Your task to perform on an android device: toggle pop-ups in chrome Image 0: 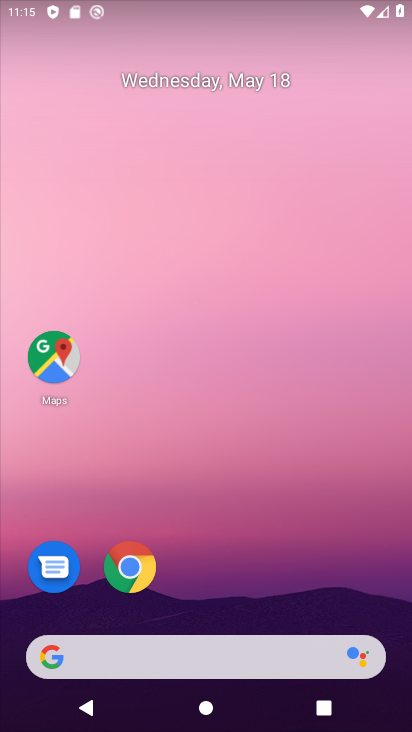
Step 0: drag from (207, 584) to (205, 151)
Your task to perform on an android device: toggle pop-ups in chrome Image 1: 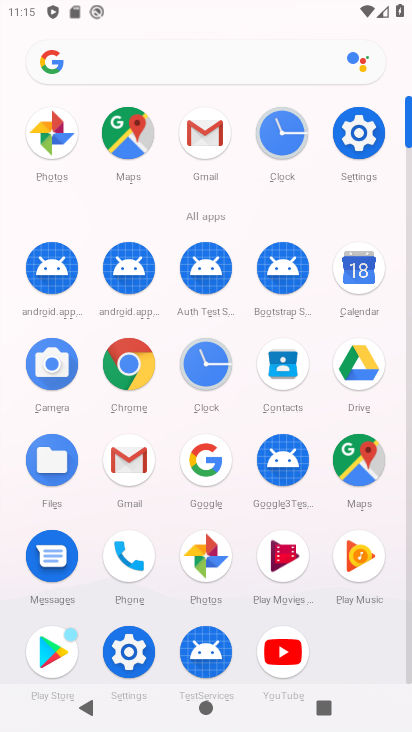
Step 1: click (130, 373)
Your task to perform on an android device: toggle pop-ups in chrome Image 2: 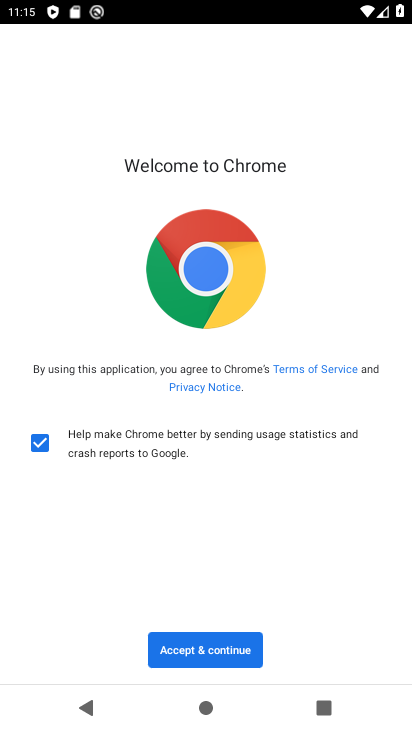
Step 2: click (195, 642)
Your task to perform on an android device: toggle pop-ups in chrome Image 3: 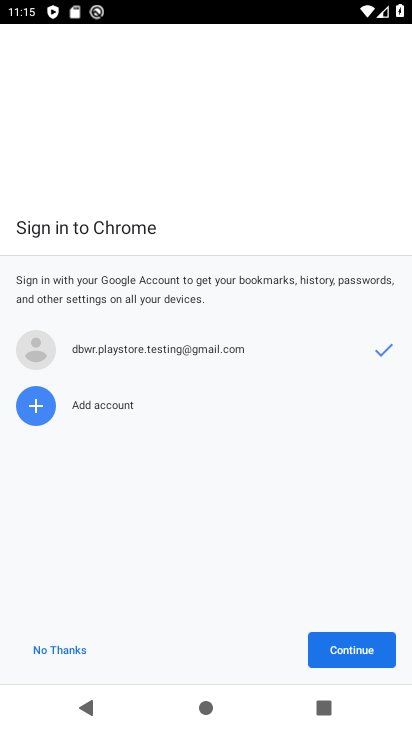
Step 3: click (350, 655)
Your task to perform on an android device: toggle pop-ups in chrome Image 4: 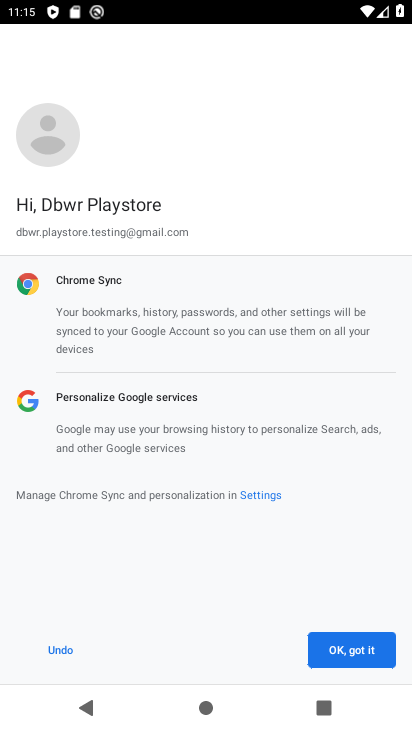
Step 4: click (350, 654)
Your task to perform on an android device: toggle pop-ups in chrome Image 5: 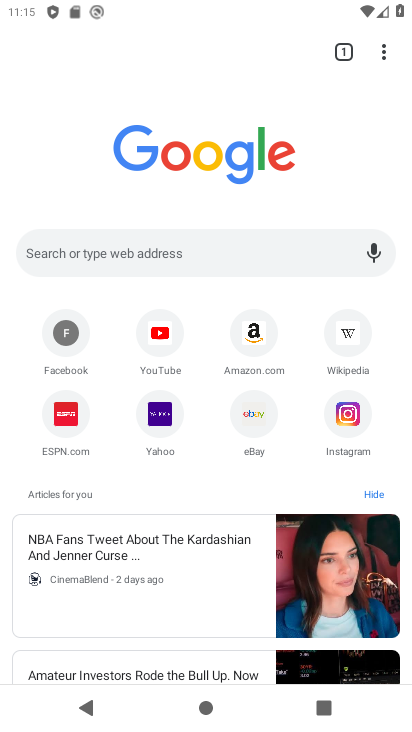
Step 5: click (390, 57)
Your task to perform on an android device: toggle pop-ups in chrome Image 6: 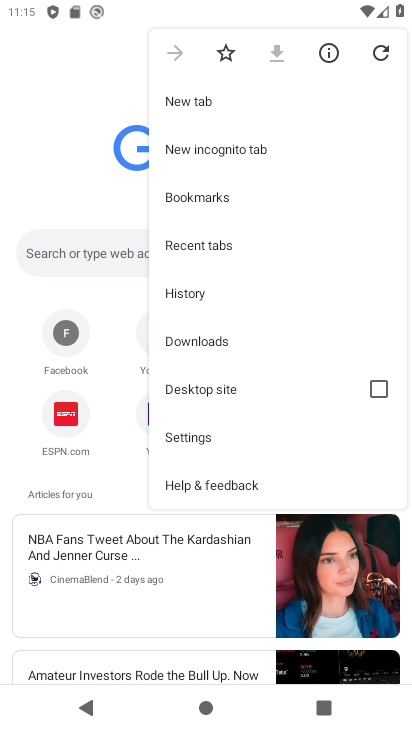
Step 6: click (193, 434)
Your task to perform on an android device: toggle pop-ups in chrome Image 7: 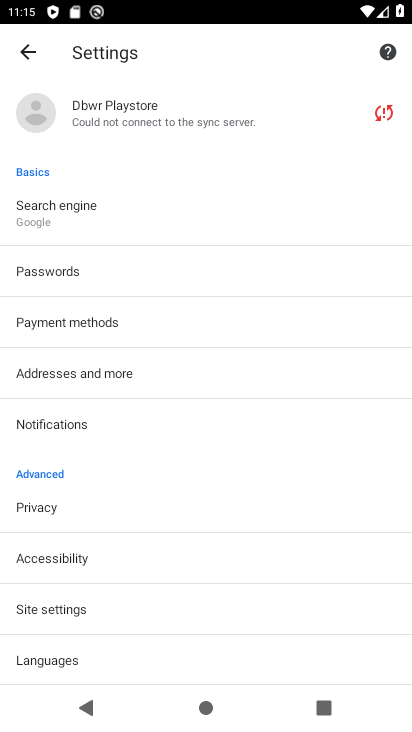
Step 7: click (74, 610)
Your task to perform on an android device: toggle pop-ups in chrome Image 8: 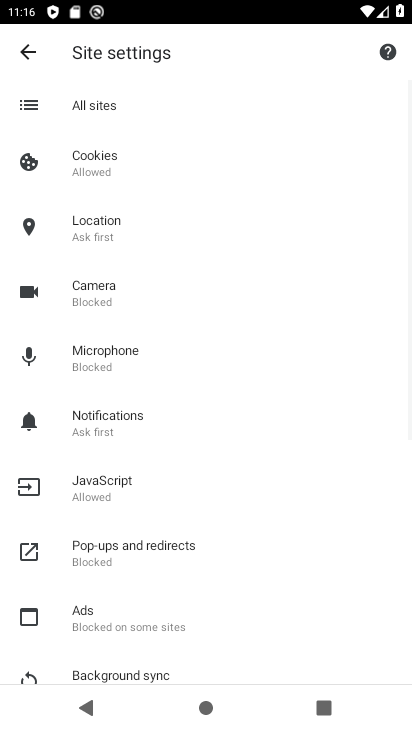
Step 8: click (132, 546)
Your task to perform on an android device: toggle pop-ups in chrome Image 9: 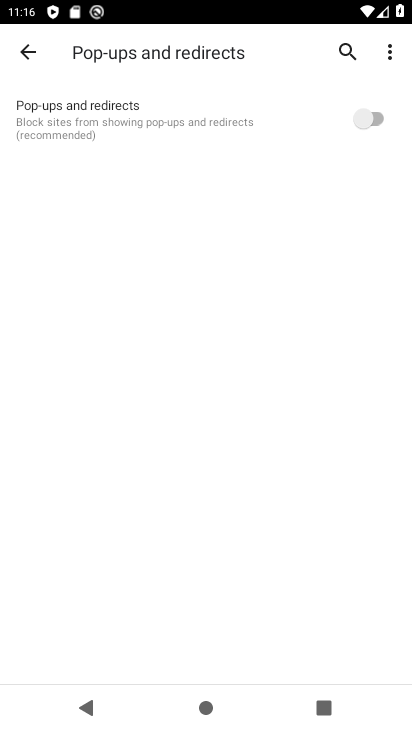
Step 9: click (379, 120)
Your task to perform on an android device: toggle pop-ups in chrome Image 10: 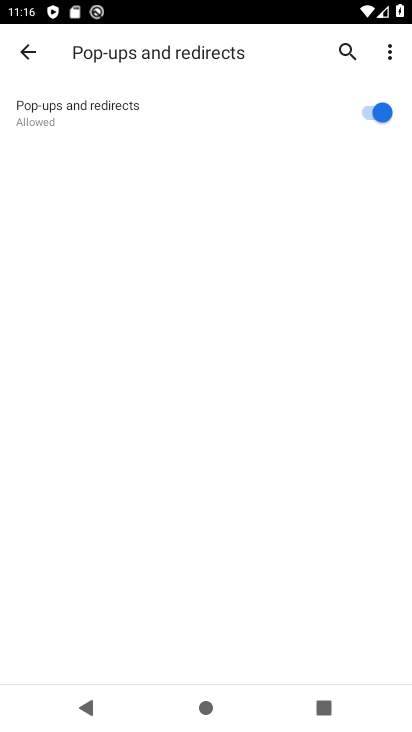
Step 10: task complete